Your task to perform on an android device: change the clock display to analog Image 0: 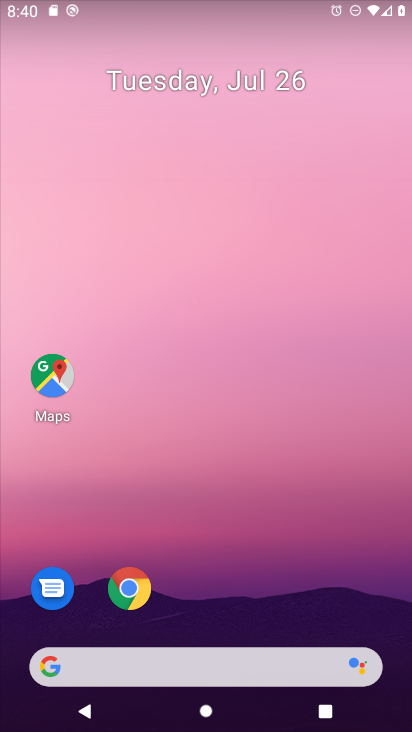
Step 0: drag from (225, 650) to (240, 86)
Your task to perform on an android device: change the clock display to analog Image 1: 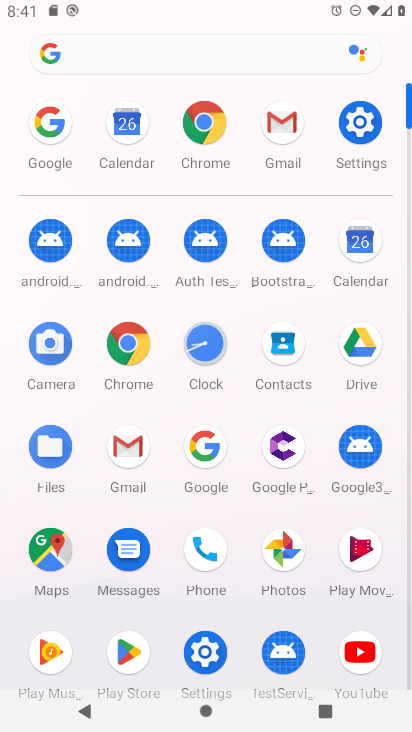
Step 1: click (210, 352)
Your task to perform on an android device: change the clock display to analog Image 2: 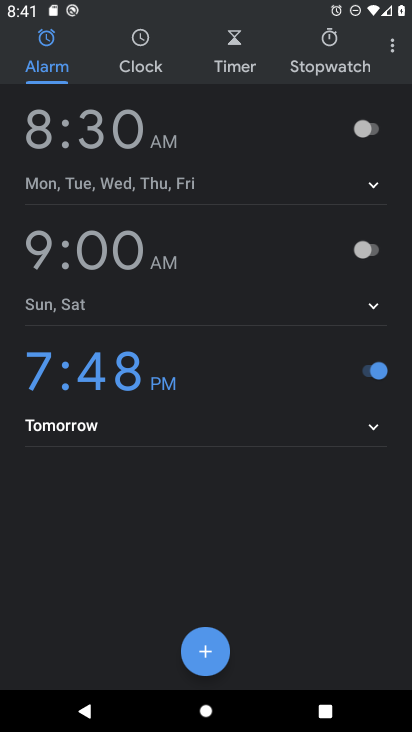
Step 2: click (394, 40)
Your task to perform on an android device: change the clock display to analog Image 3: 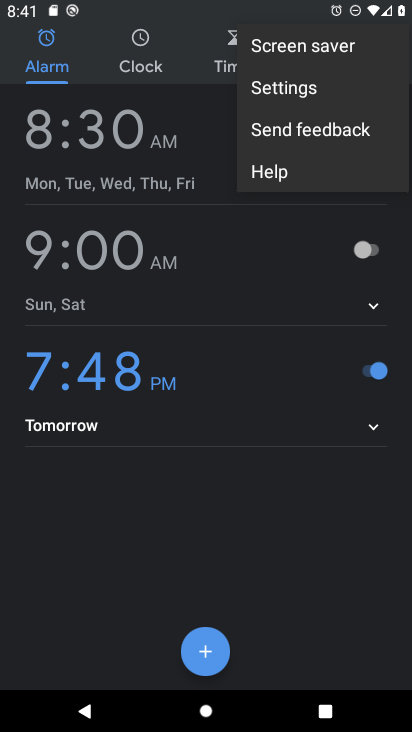
Step 3: click (280, 84)
Your task to perform on an android device: change the clock display to analog Image 4: 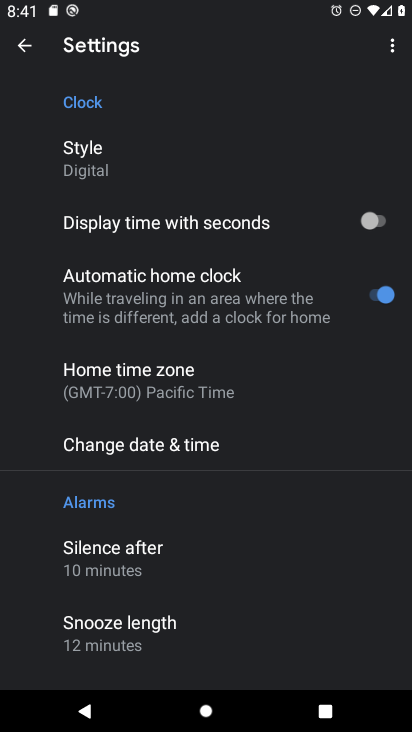
Step 4: click (101, 158)
Your task to perform on an android device: change the clock display to analog Image 5: 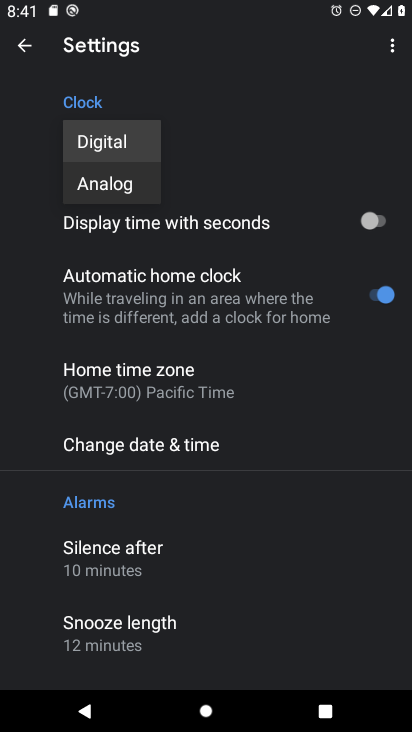
Step 5: click (122, 187)
Your task to perform on an android device: change the clock display to analog Image 6: 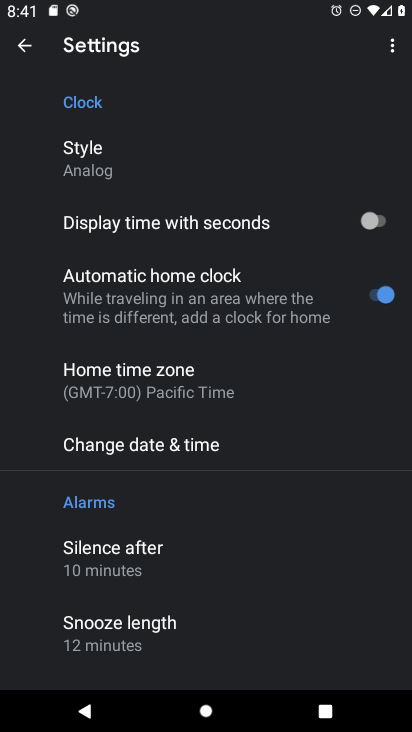
Step 6: task complete